Your task to perform on an android device: read, delete, or share a saved page in the chrome app Image 0: 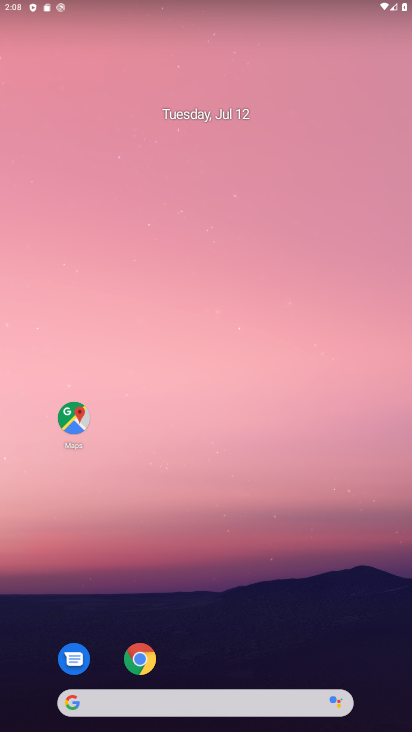
Step 0: click (143, 657)
Your task to perform on an android device: read, delete, or share a saved page in the chrome app Image 1: 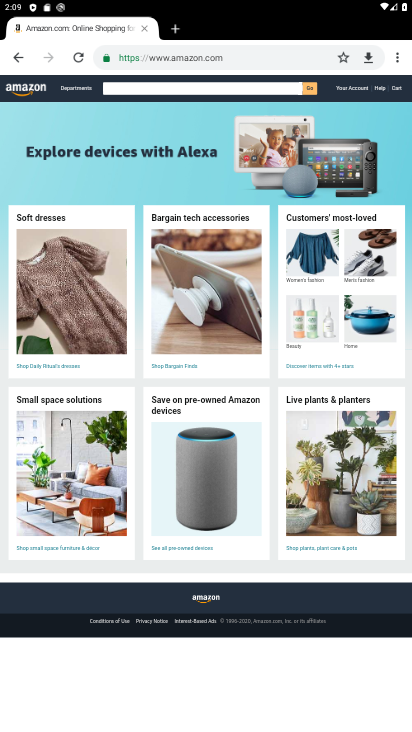
Step 1: click (399, 57)
Your task to perform on an android device: read, delete, or share a saved page in the chrome app Image 2: 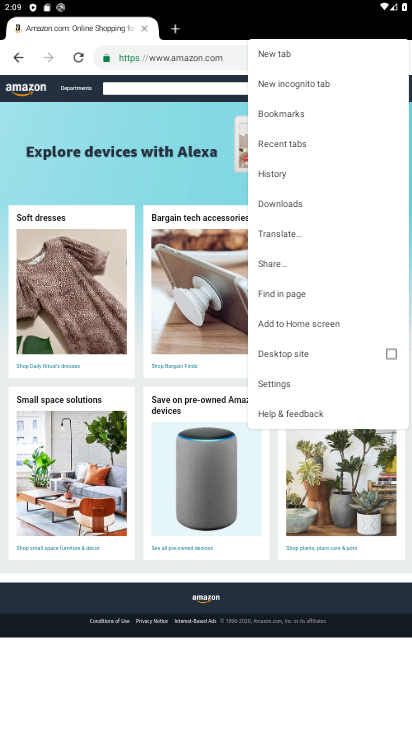
Step 2: click (290, 203)
Your task to perform on an android device: read, delete, or share a saved page in the chrome app Image 3: 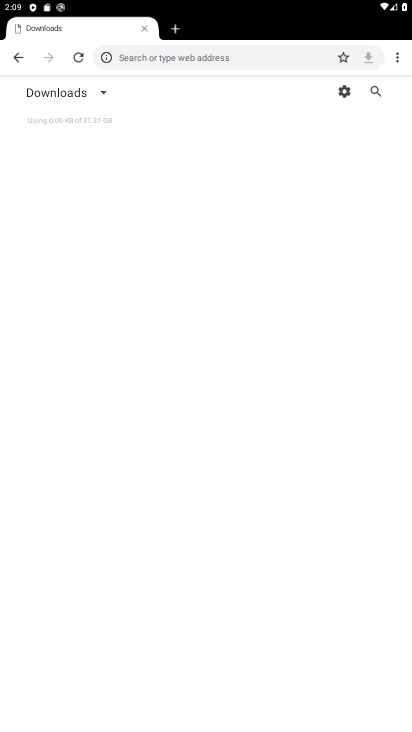
Step 3: click (94, 96)
Your task to perform on an android device: read, delete, or share a saved page in the chrome app Image 4: 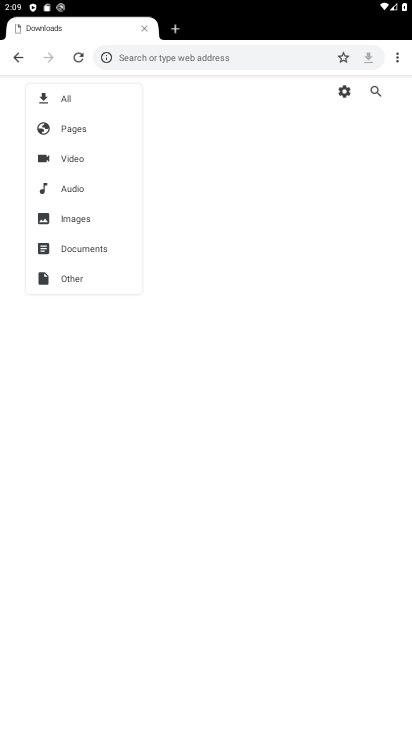
Step 4: click (93, 125)
Your task to perform on an android device: read, delete, or share a saved page in the chrome app Image 5: 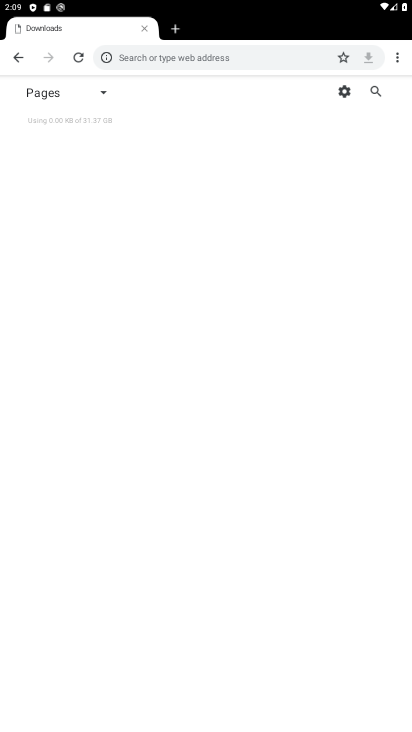
Step 5: task complete